Your task to perform on an android device: Open the web browser Image 0: 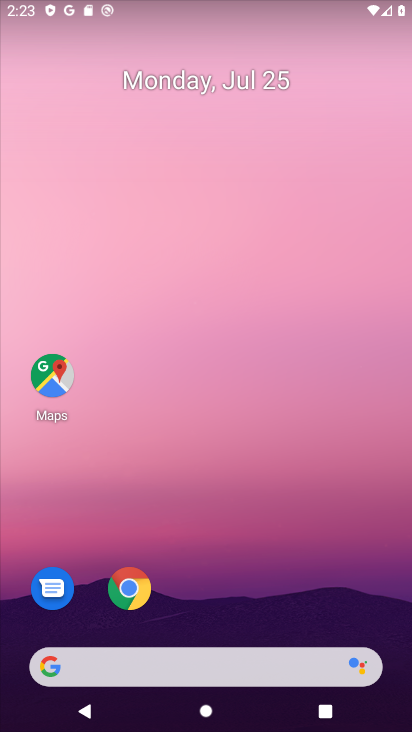
Step 0: click (132, 587)
Your task to perform on an android device: Open the web browser Image 1: 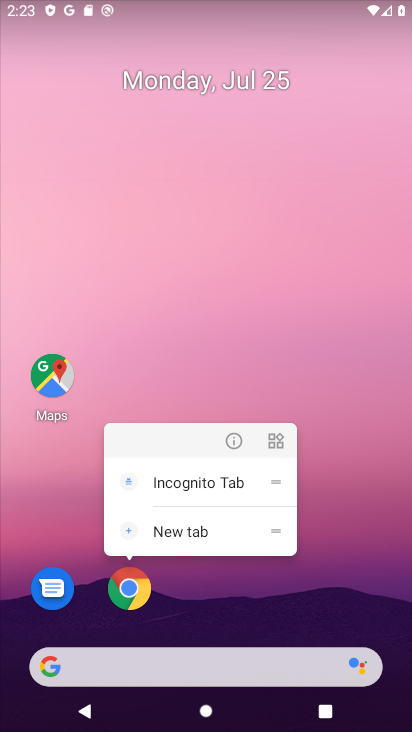
Step 1: click (128, 583)
Your task to perform on an android device: Open the web browser Image 2: 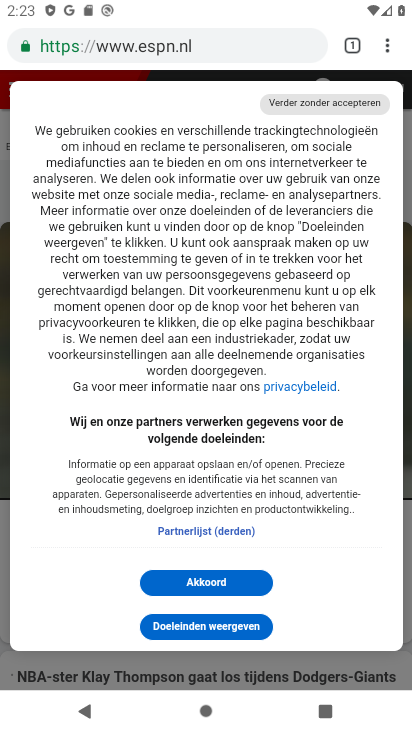
Step 2: click (354, 39)
Your task to perform on an android device: Open the web browser Image 3: 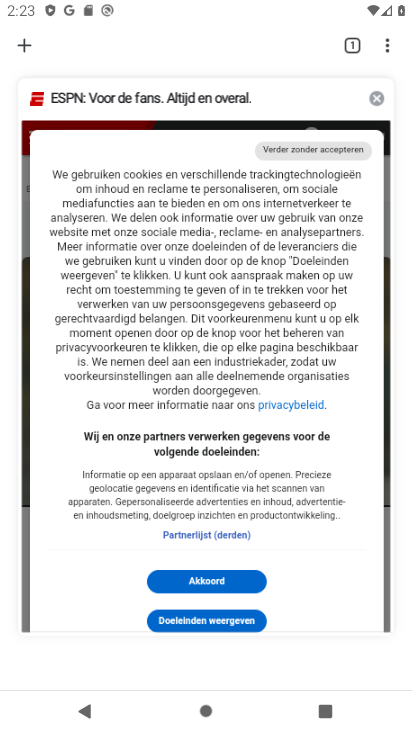
Step 3: click (25, 42)
Your task to perform on an android device: Open the web browser Image 4: 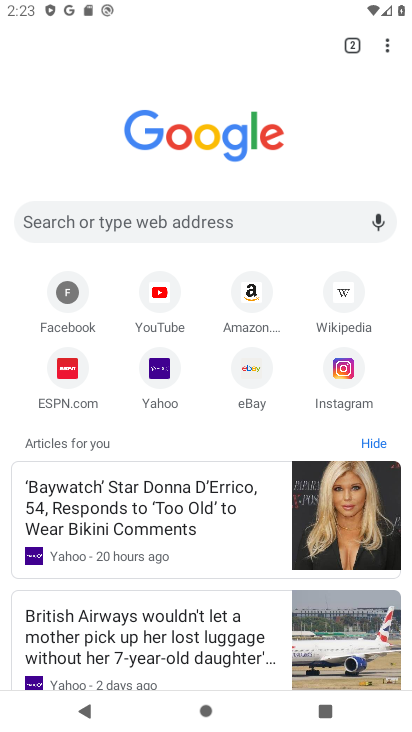
Step 4: task complete